Your task to perform on an android device: Open internet settings Image 0: 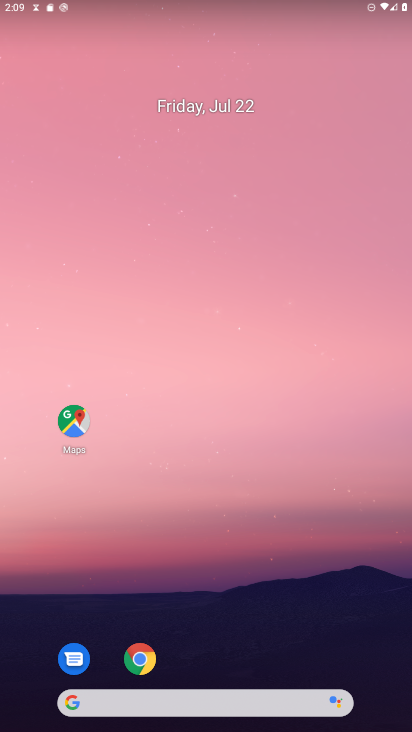
Step 0: drag from (352, 716) to (348, 0)
Your task to perform on an android device: Open internet settings Image 1: 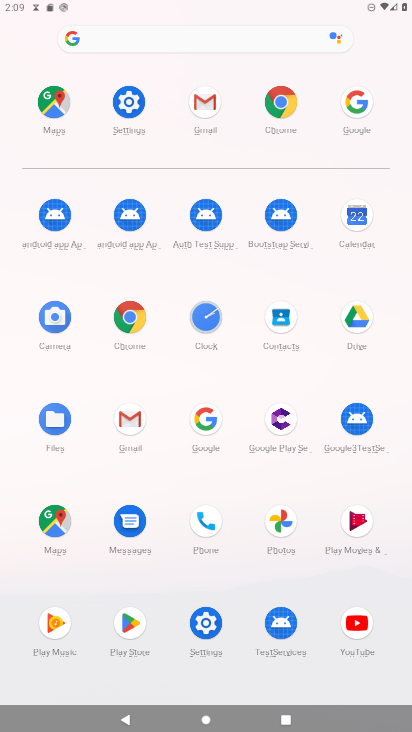
Step 1: click (131, 104)
Your task to perform on an android device: Open internet settings Image 2: 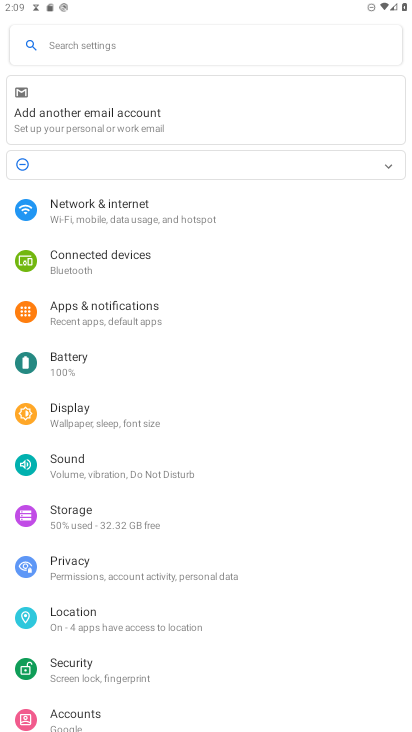
Step 2: click (65, 217)
Your task to perform on an android device: Open internet settings Image 3: 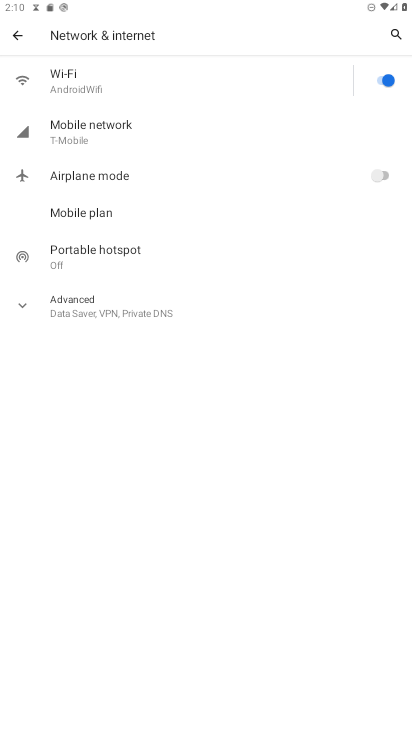
Step 3: click (82, 133)
Your task to perform on an android device: Open internet settings Image 4: 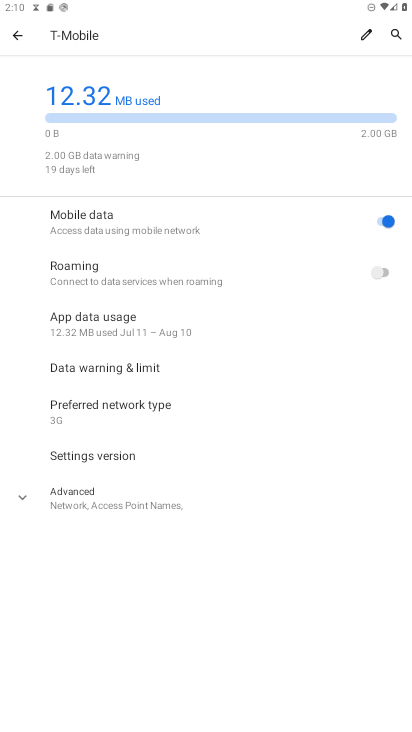
Step 4: task complete